Your task to perform on an android device: turn on translation in the chrome app Image 0: 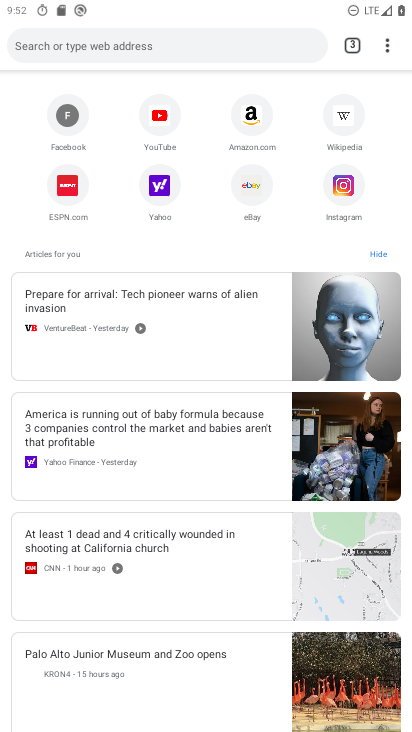
Step 0: drag from (186, 560) to (237, 341)
Your task to perform on an android device: turn on translation in the chrome app Image 1: 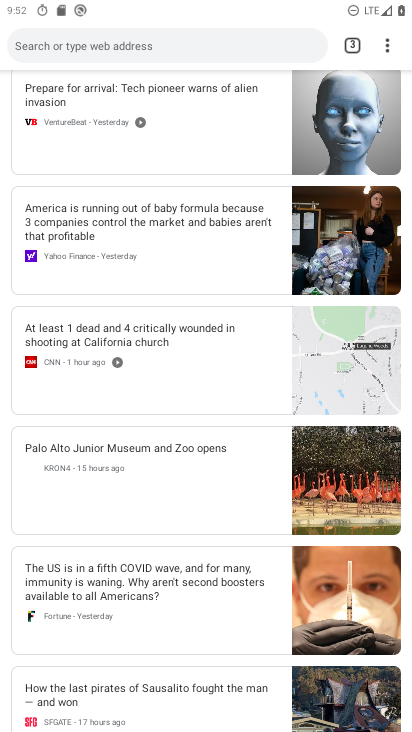
Step 1: drag from (171, 613) to (235, 224)
Your task to perform on an android device: turn on translation in the chrome app Image 2: 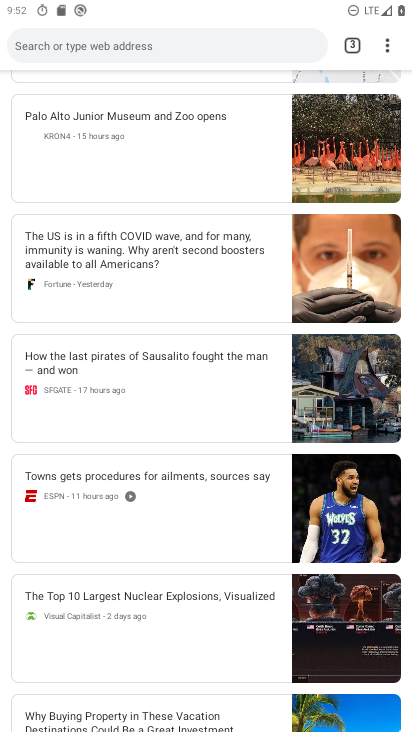
Step 2: drag from (220, 233) to (265, 719)
Your task to perform on an android device: turn on translation in the chrome app Image 3: 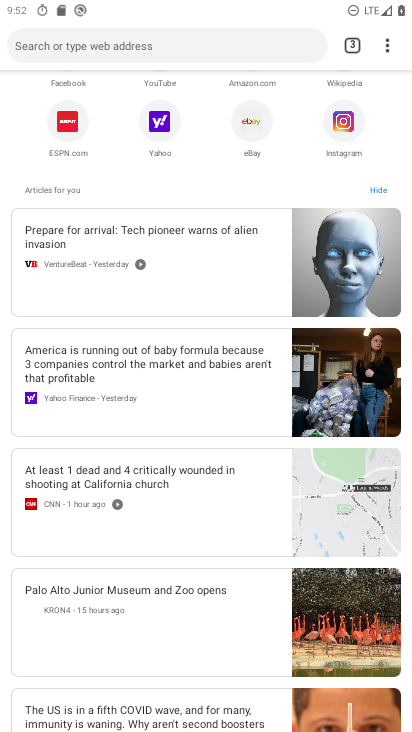
Step 3: click (395, 36)
Your task to perform on an android device: turn on translation in the chrome app Image 4: 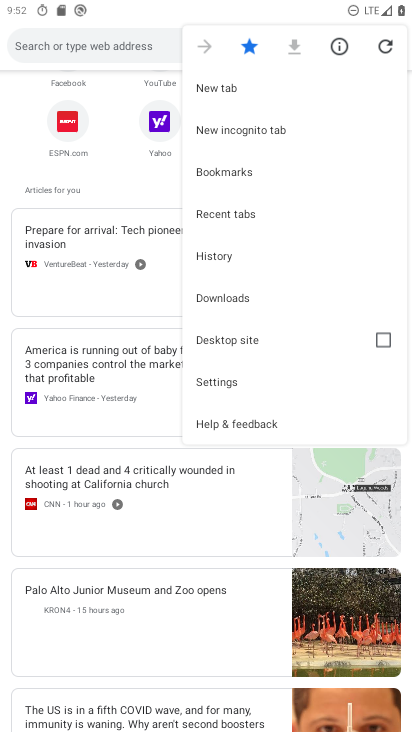
Step 4: click (229, 385)
Your task to perform on an android device: turn on translation in the chrome app Image 5: 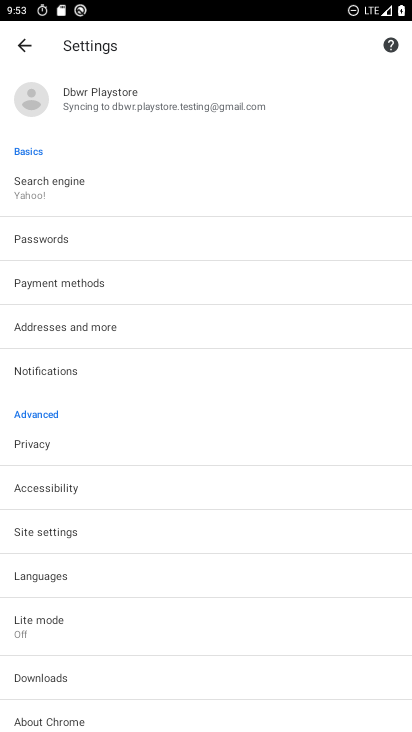
Step 5: click (75, 567)
Your task to perform on an android device: turn on translation in the chrome app Image 6: 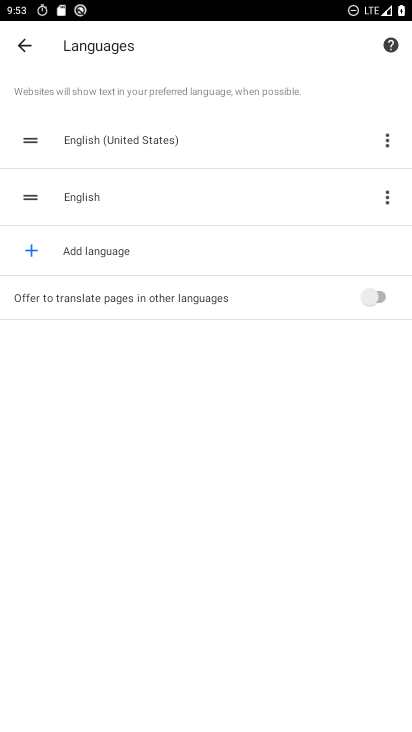
Step 6: click (356, 282)
Your task to perform on an android device: turn on translation in the chrome app Image 7: 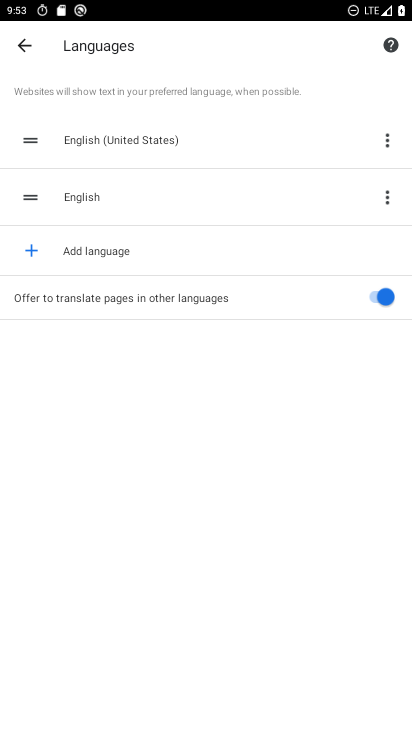
Step 7: task complete